Your task to perform on an android device: Go to battery settings Image 0: 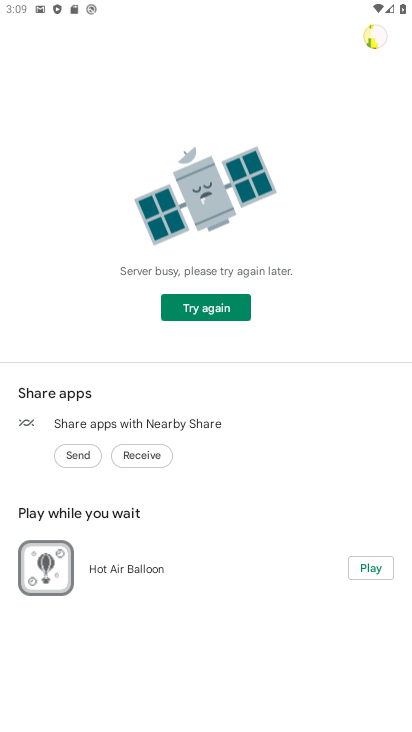
Step 0: press home button
Your task to perform on an android device: Go to battery settings Image 1: 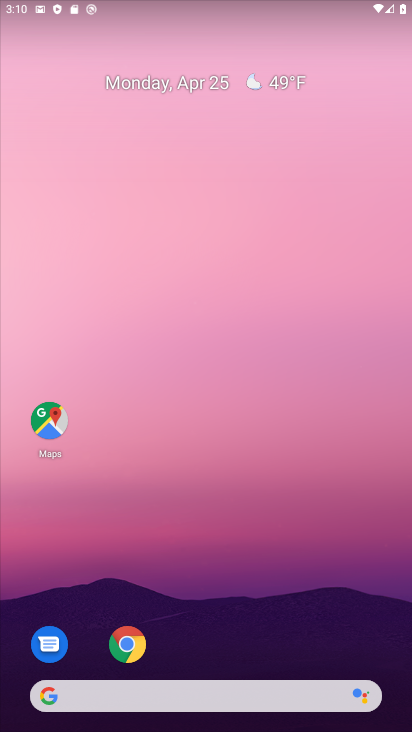
Step 1: drag from (221, 612) to (213, 186)
Your task to perform on an android device: Go to battery settings Image 2: 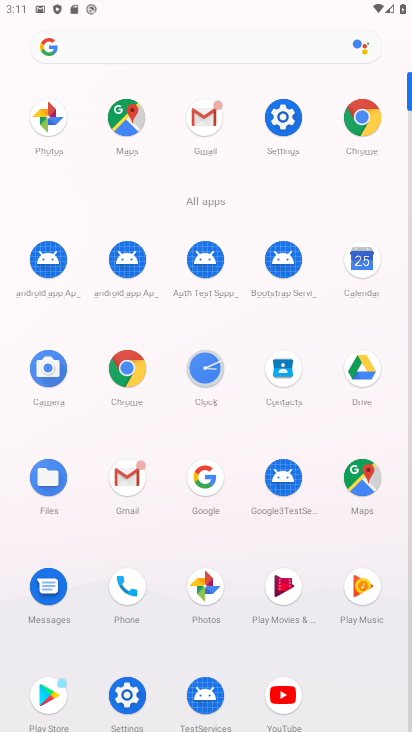
Step 2: click (286, 131)
Your task to perform on an android device: Go to battery settings Image 3: 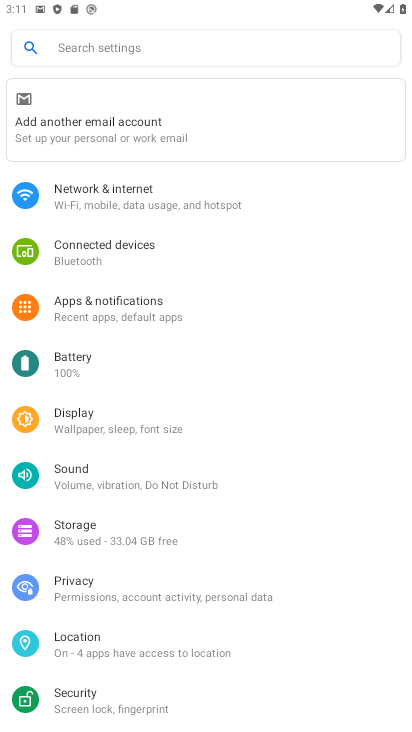
Step 3: click (106, 356)
Your task to perform on an android device: Go to battery settings Image 4: 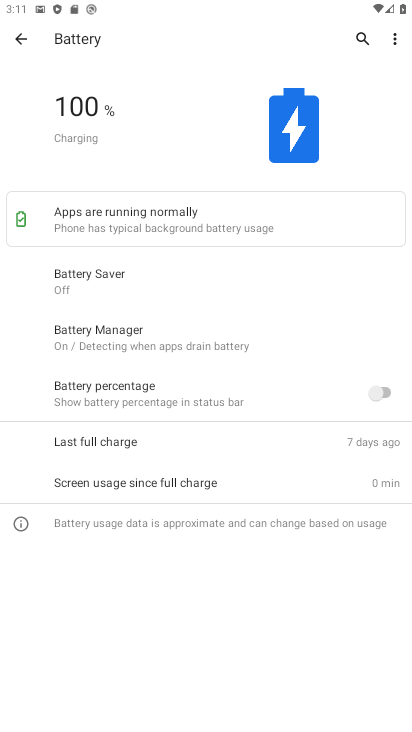
Step 4: task complete